Your task to perform on an android device: Search for razer blade on costco, select the first entry, add it to the cart, then select checkout. Image 0: 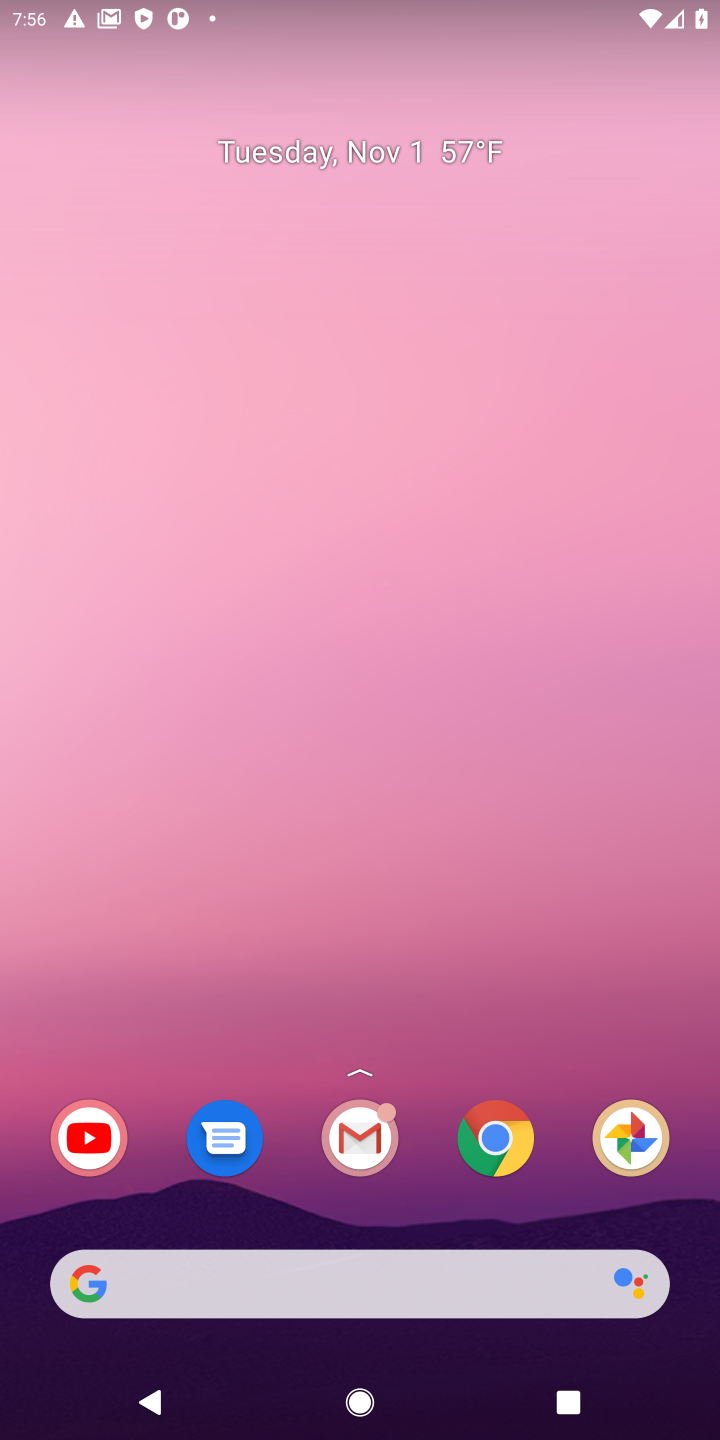
Step 0: click (510, 1157)
Your task to perform on an android device: Search for razer blade on costco, select the first entry, add it to the cart, then select checkout. Image 1: 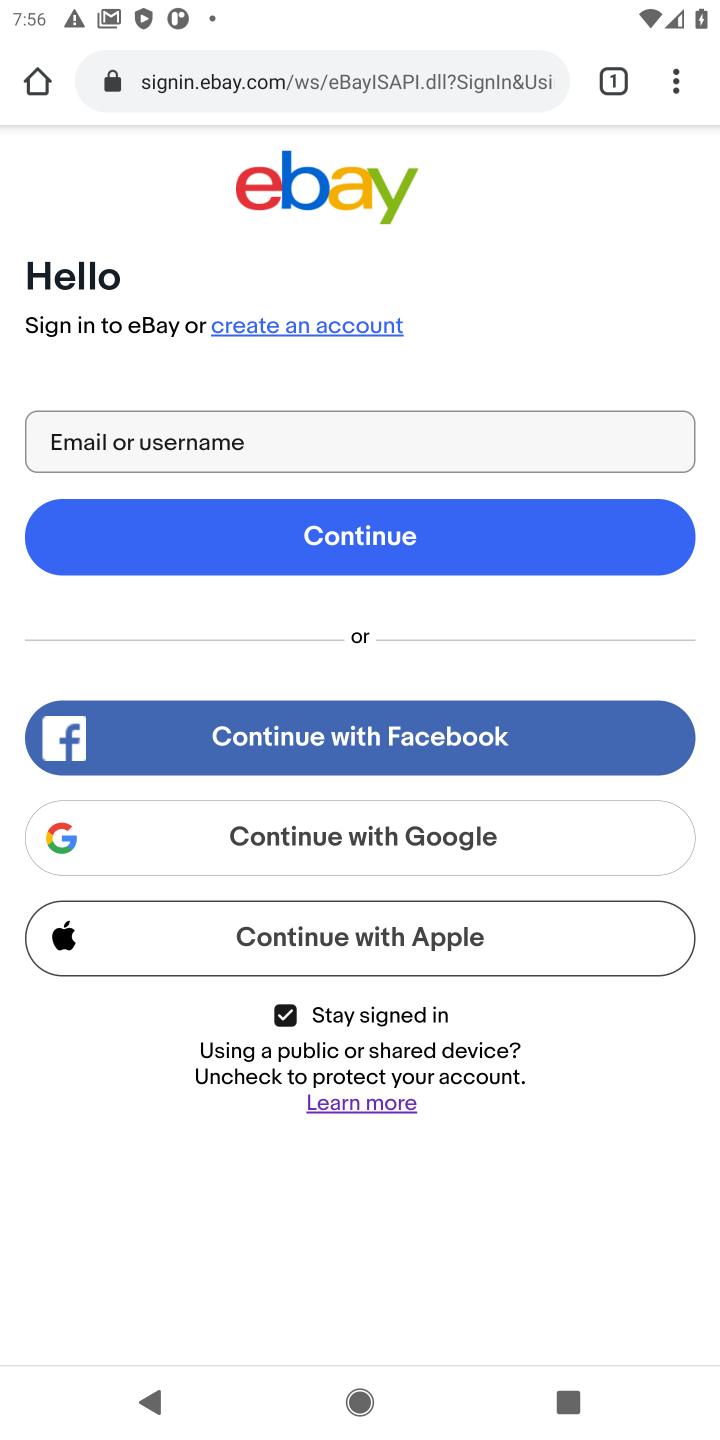
Step 1: click (246, 92)
Your task to perform on an android device: Search for razer blade on costco, select the first entry, add it to the cart, then select checkout. Image 2: 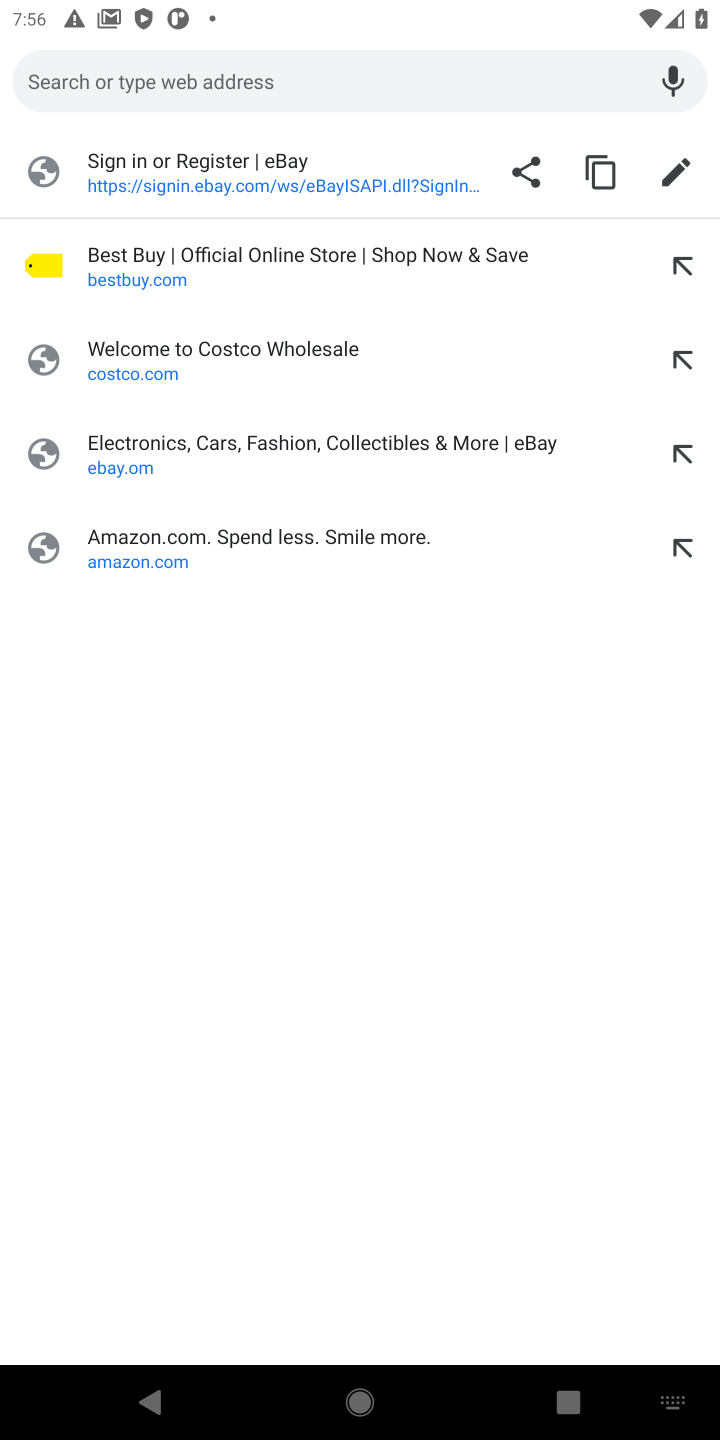
Step 2: click (154, 379)
Your task to perform on an android device: Search for razer blade on costco, select the first entry, add it to the cart, then select checkout. Image 3: 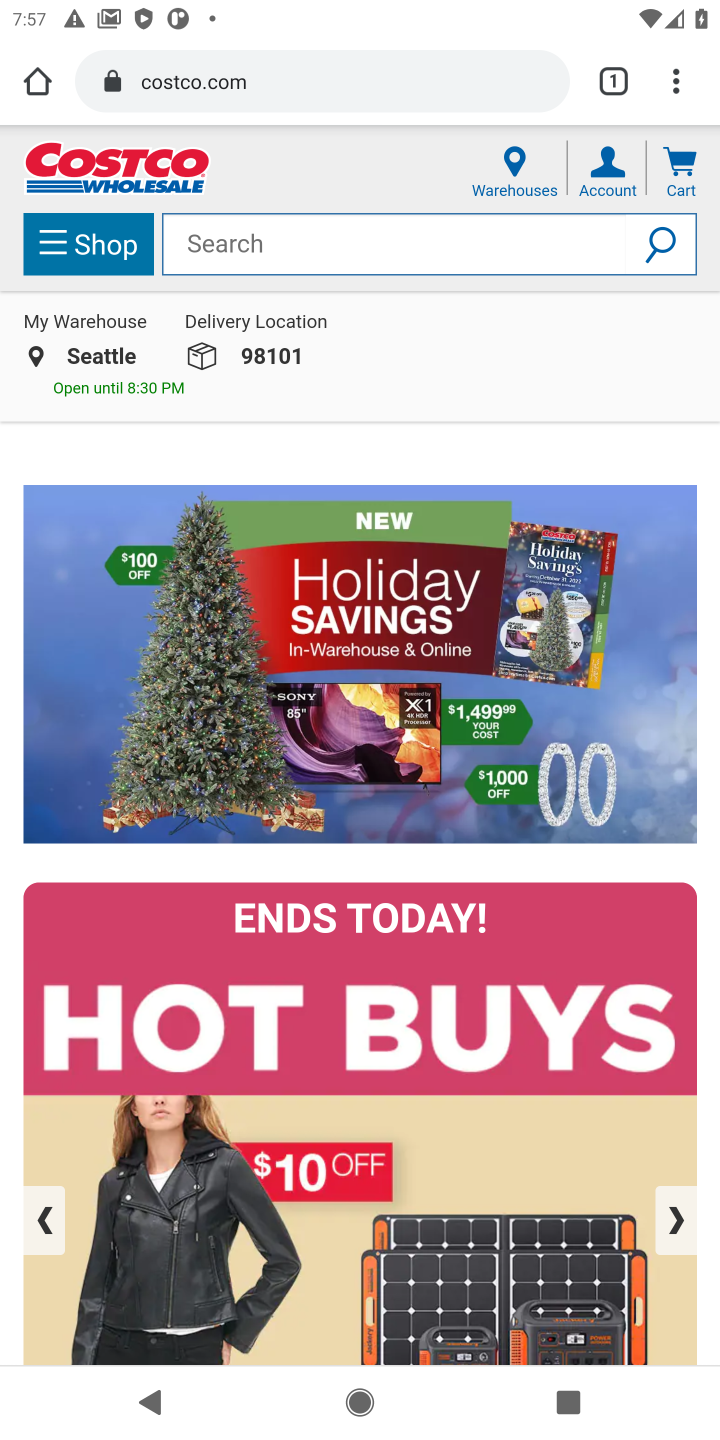
Step 3: click (424, 252)
Your task to perform on an android device: Search for razer blade on costco, select the first entry, add it to the cart, then select checkout. Image 4: 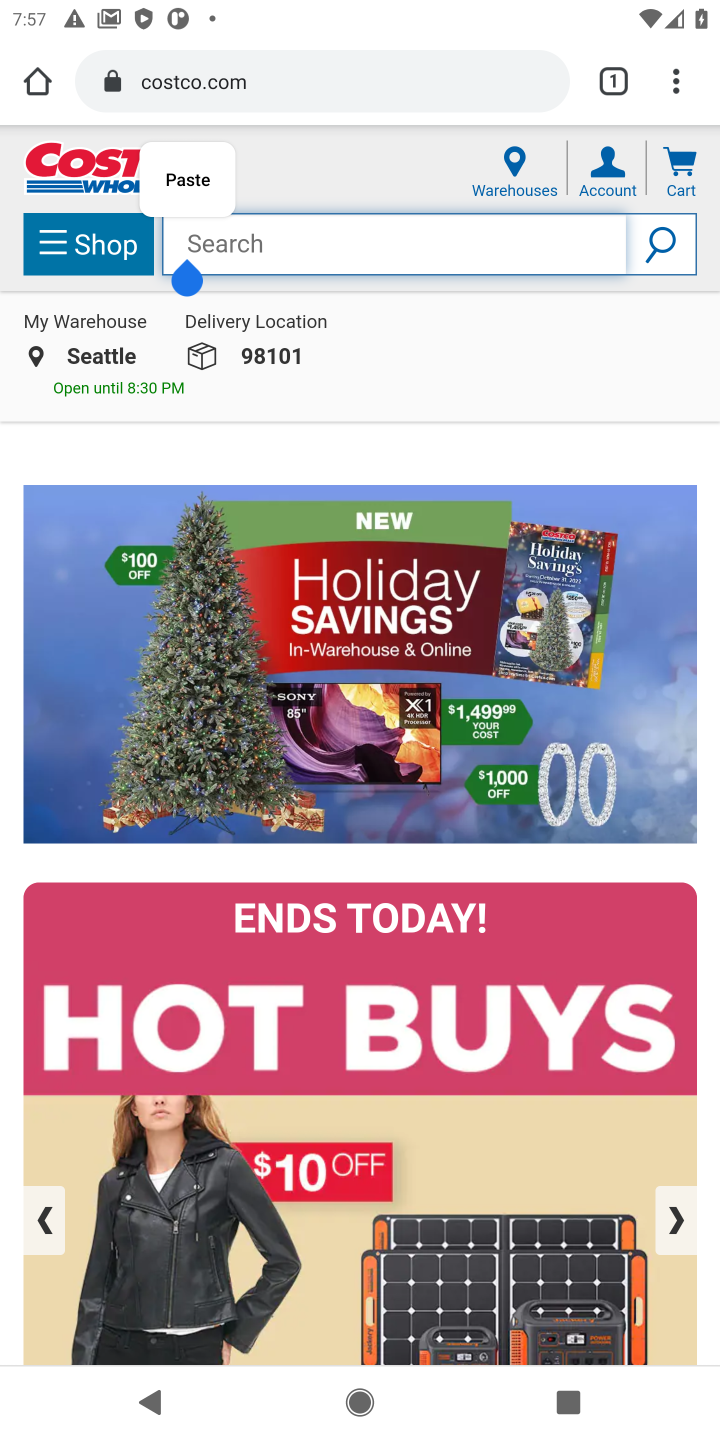
Step 4: click (326, 244)
Your task to perform on an android device: Search for razer blade on costco, select the first entry, add it to the cart, then select checkout. Image 5: 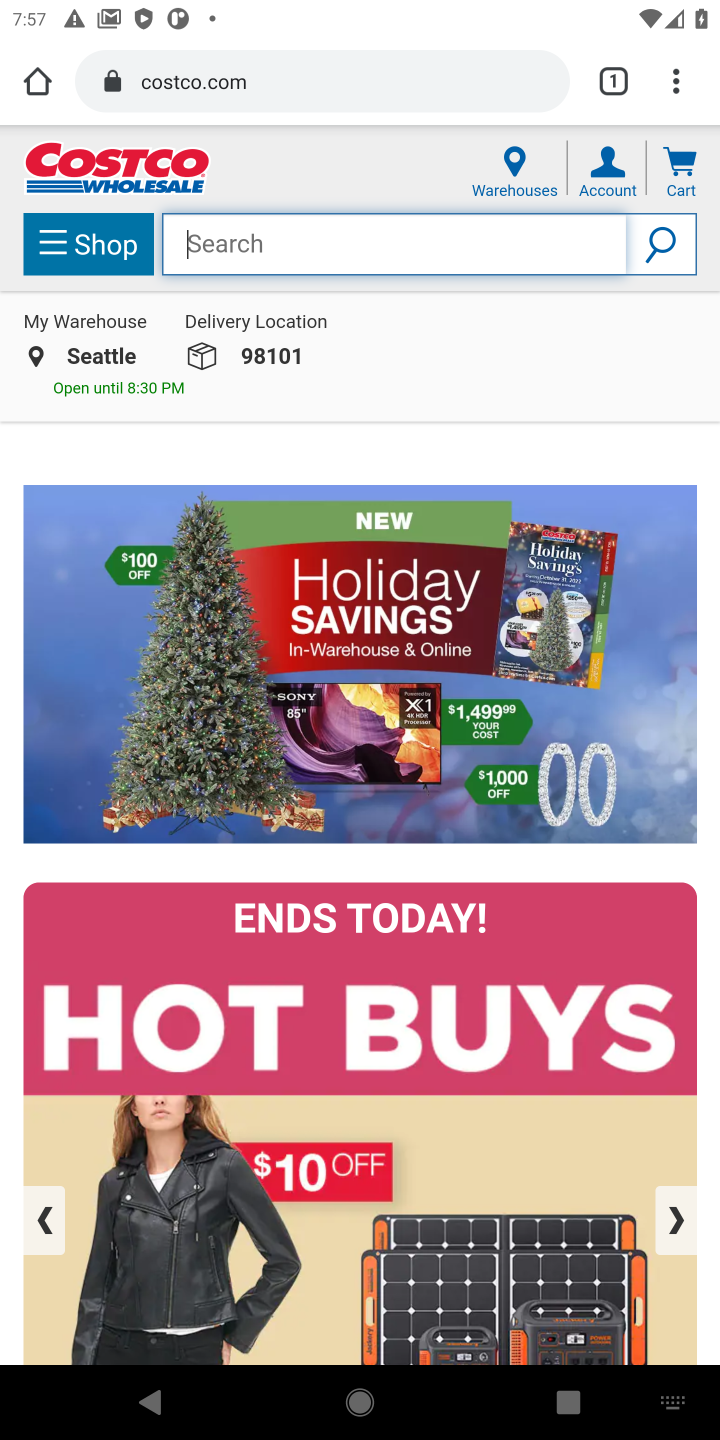
Step 5: type "razer blade"
Your task to perform on an android device: Search for razer blade on costco, select the first entry, add it to the cart, then select checkout. Image 6: 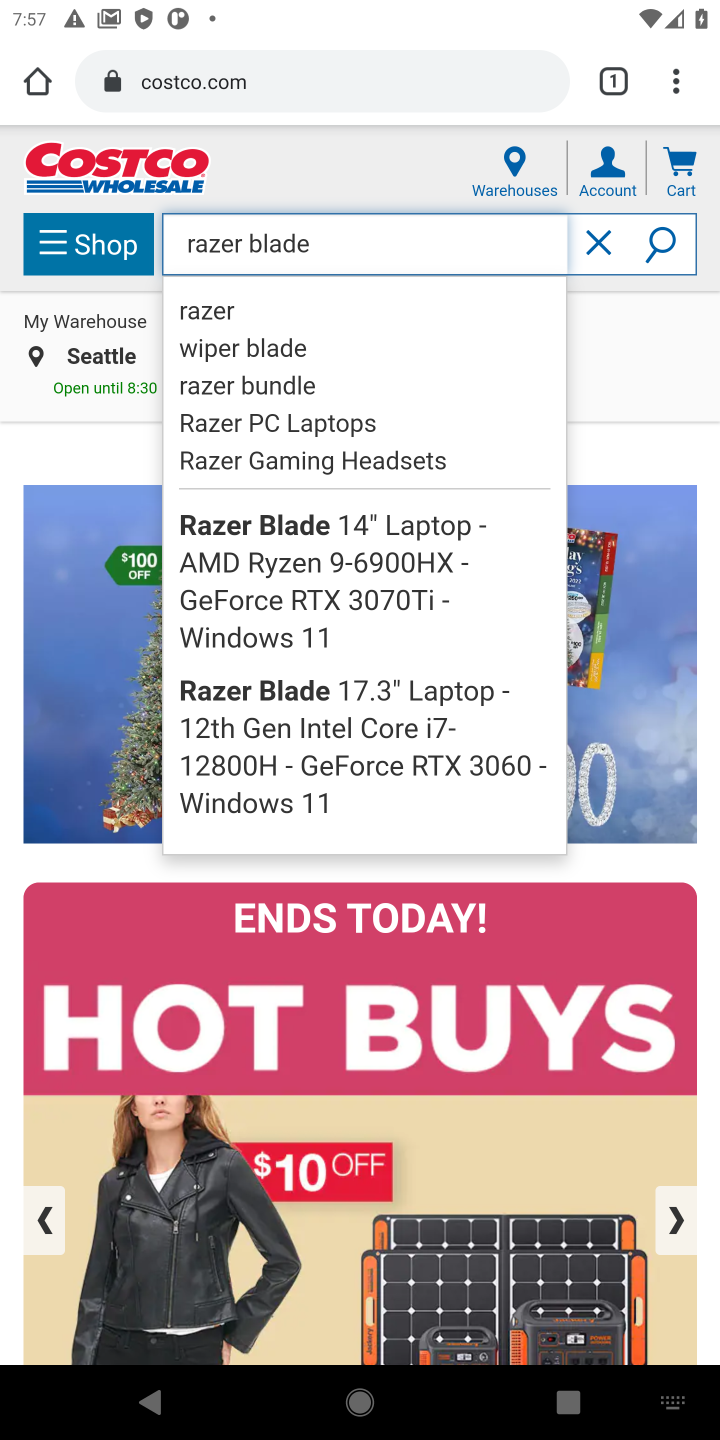
Step 6: click (651, 250)
Your task to perform on an android device: Search for razer blade on costco, select the first entry, add it to the cart, then select checkout. Image 7: 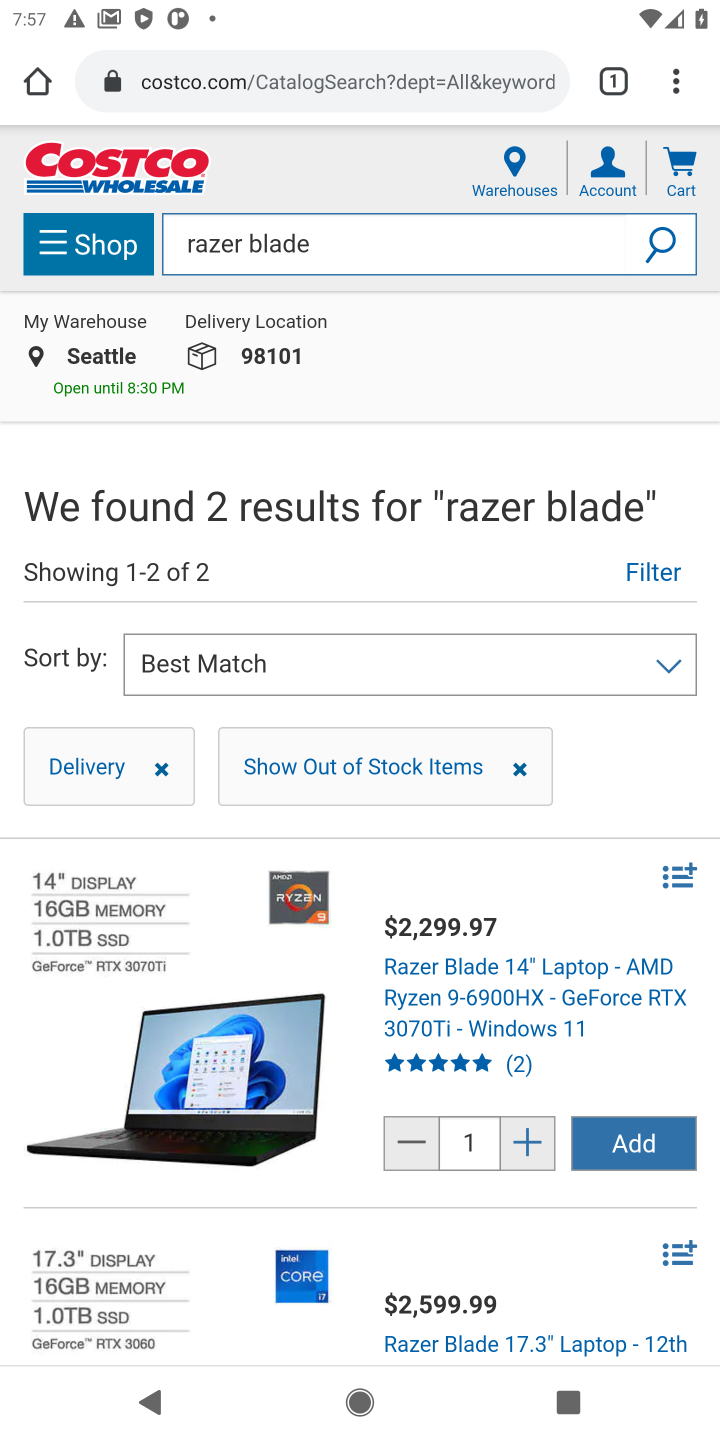
Step 7: drag from (511, 979) to (553, 614)
Your task to perform on an android device: Search for razer blade on costco, select the first entry, add it to the cart, then select checkout. Image 8: 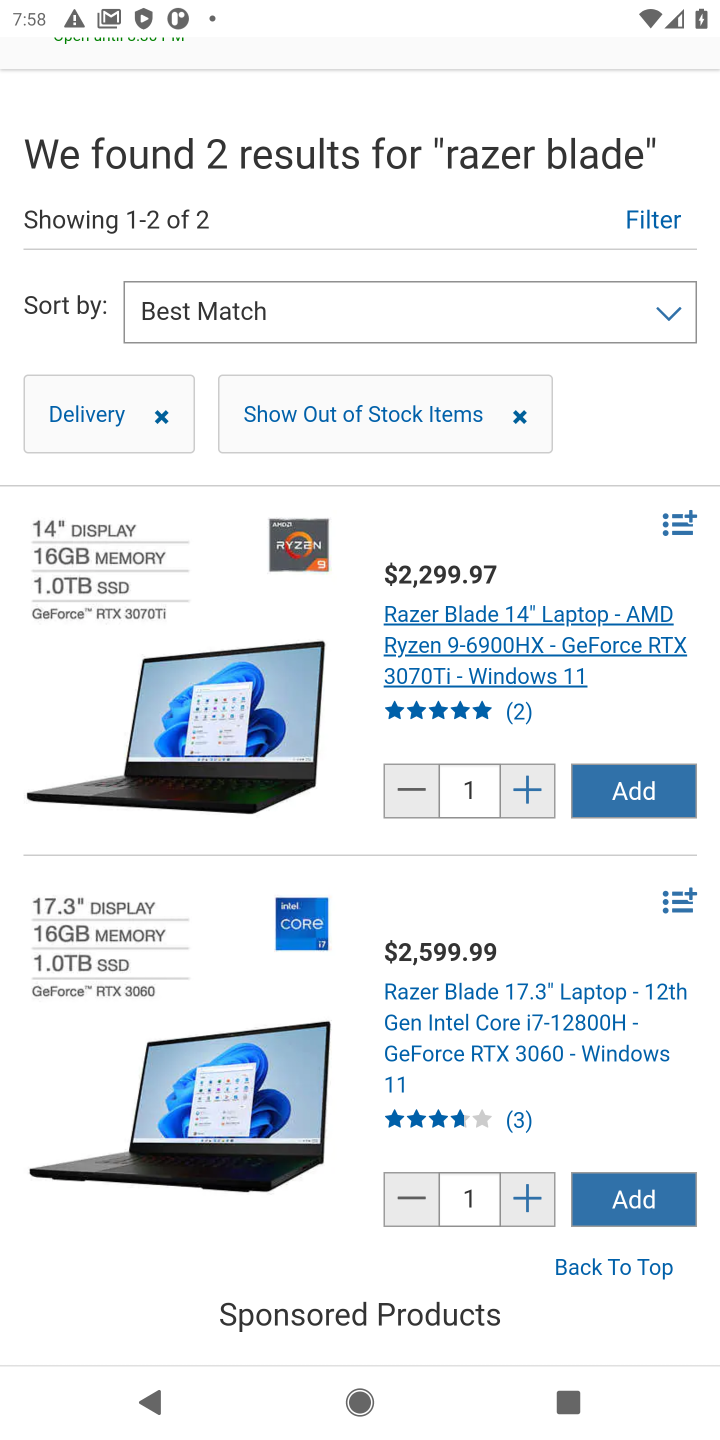
Step 8: click (443, 641)
Your task to perform on an android device: Search for razer blade on costco, select the first entry, add it to the cart, then select checkout. Image 9: 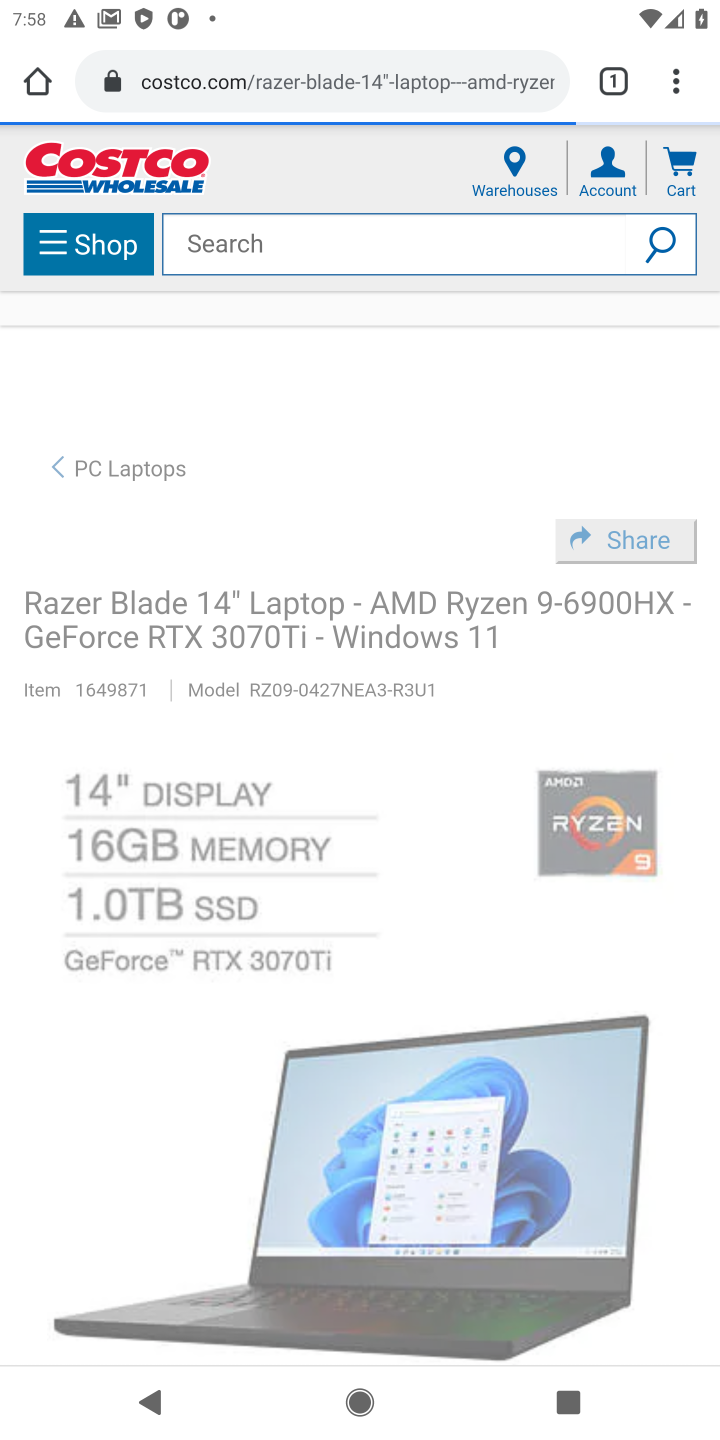
Step 9: drag from (396, 812) to (407, 343)
Your task to perform on an android device: Search for razer blade on costco, select the first entry, add it to the cart, then select checkout. Image 10: 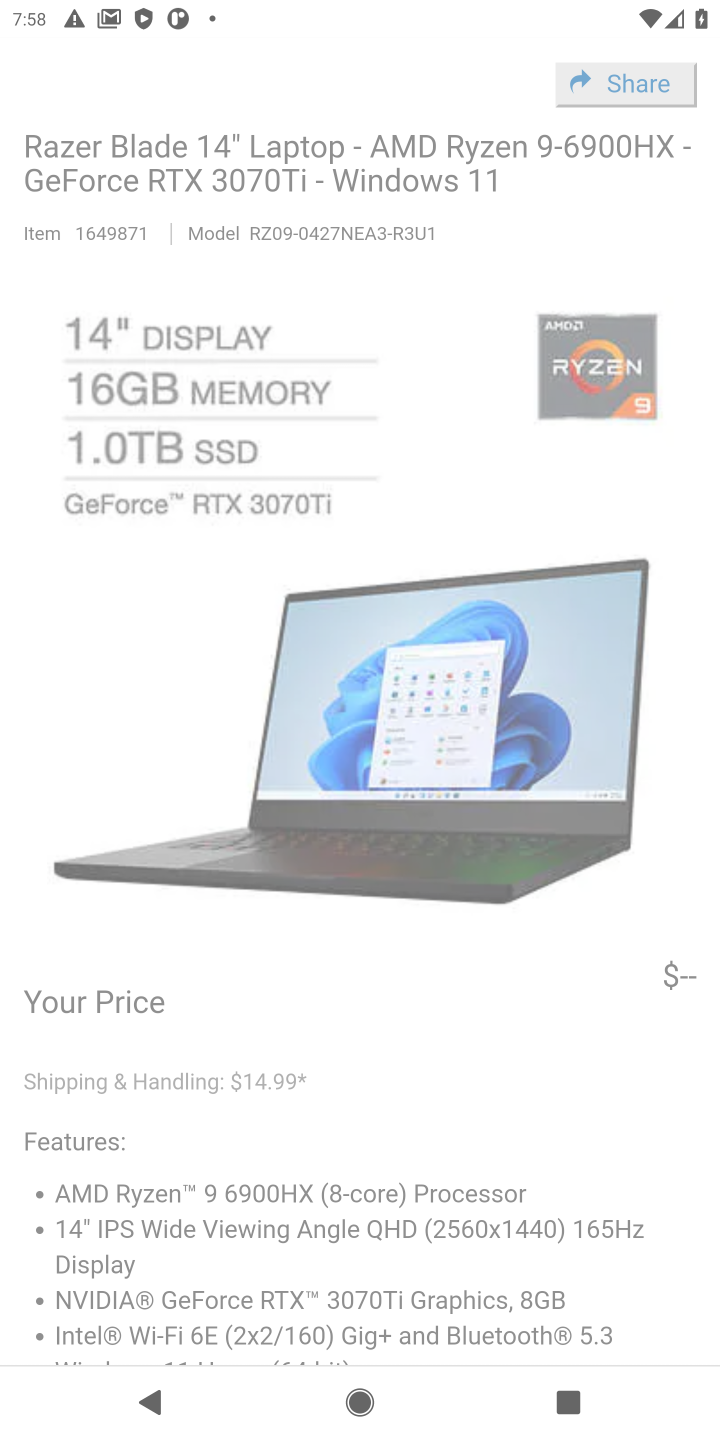
Step 10: drag from (261, 1011) to (333, 420)
Your task to perform on an android device: Search for razer blade on costco, select the first entry, add it to the cart, then select checkout. Image 11: 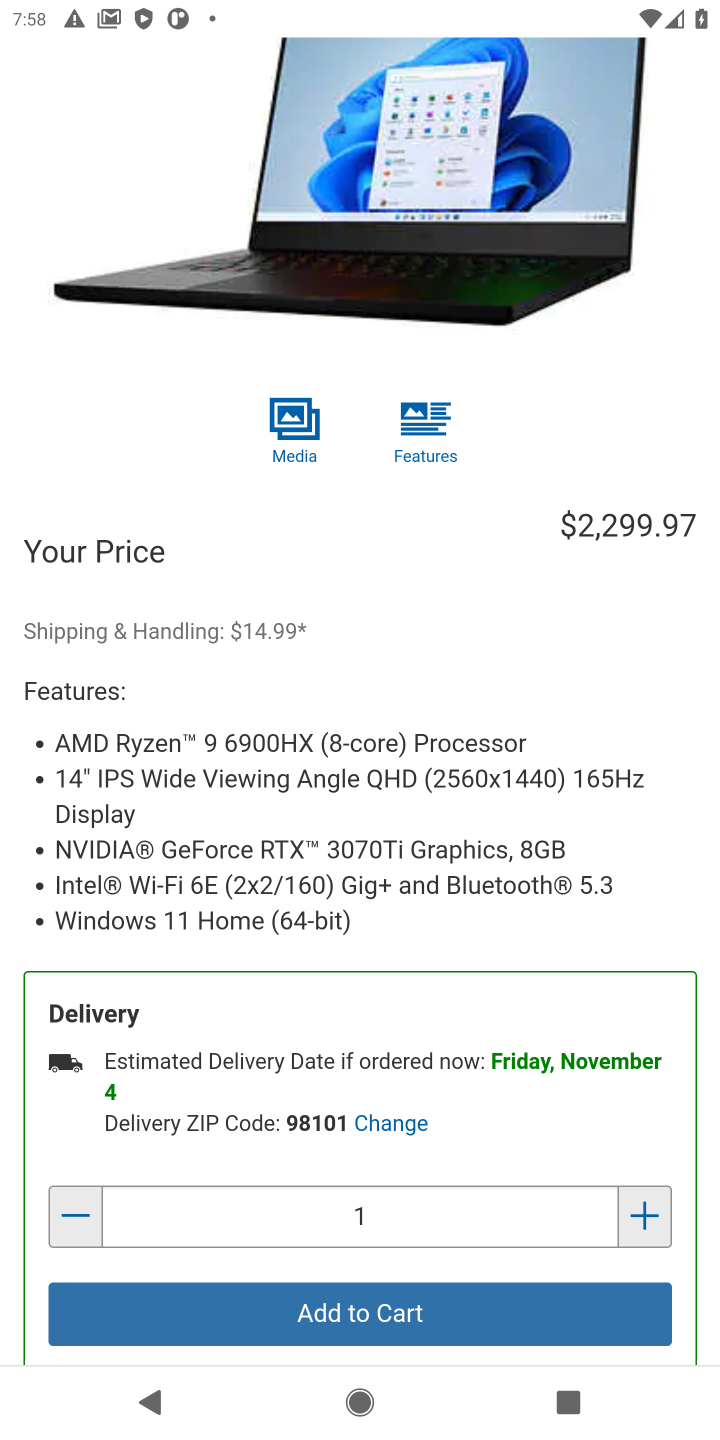
Step 11: click (331, 1315)
Your task to perform on an android device: Search for razer blade on costco, select the first entry, add it to the cart, then select checkout. Image 12: 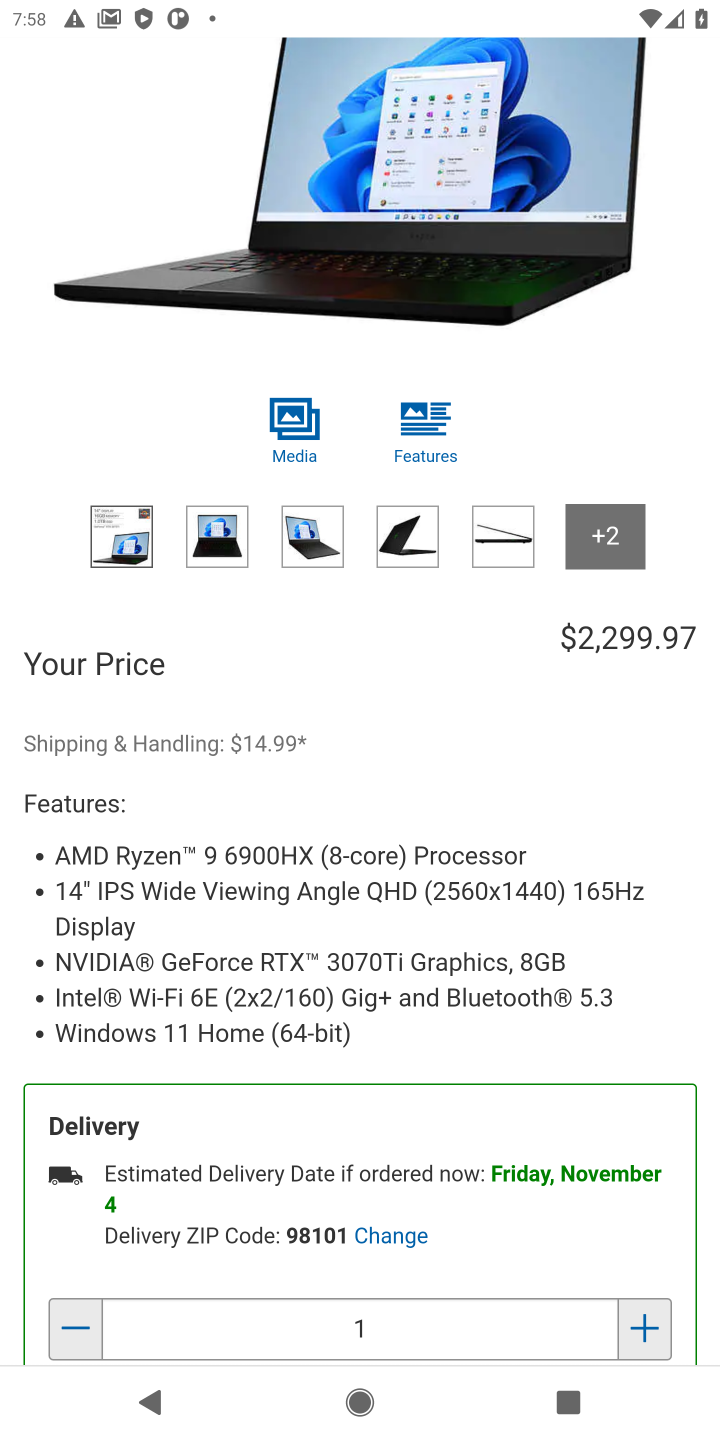
Step 12: drag from (393, 1217) to (393, 915)
Your task to perform on an android device: Search for razer blade on costco, select the first entry, add it to the cart, then select checkout. Image 13: 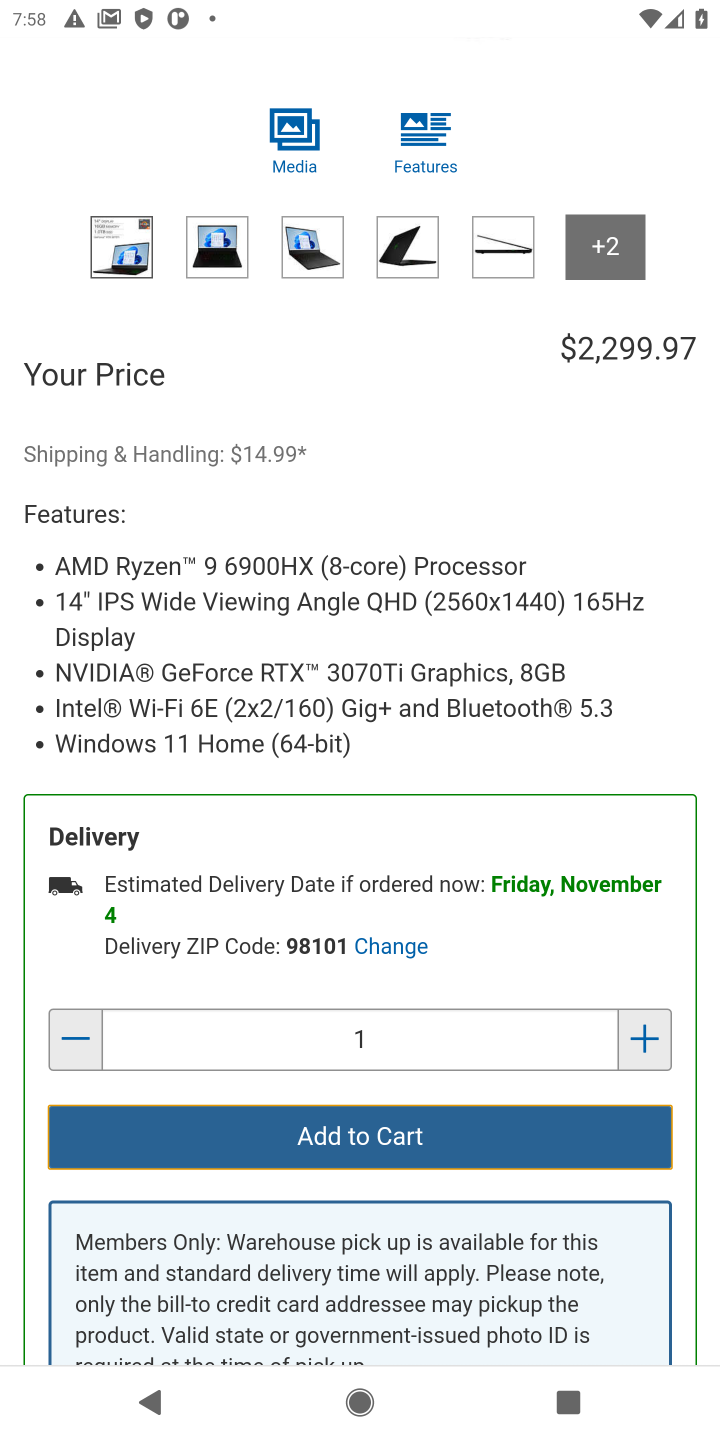
Step 13: click (338, 1138)
Your task to perform on an android device: Search for razer blade on costco, select the first entry, add it to the cart, then select checkout. Image 14: 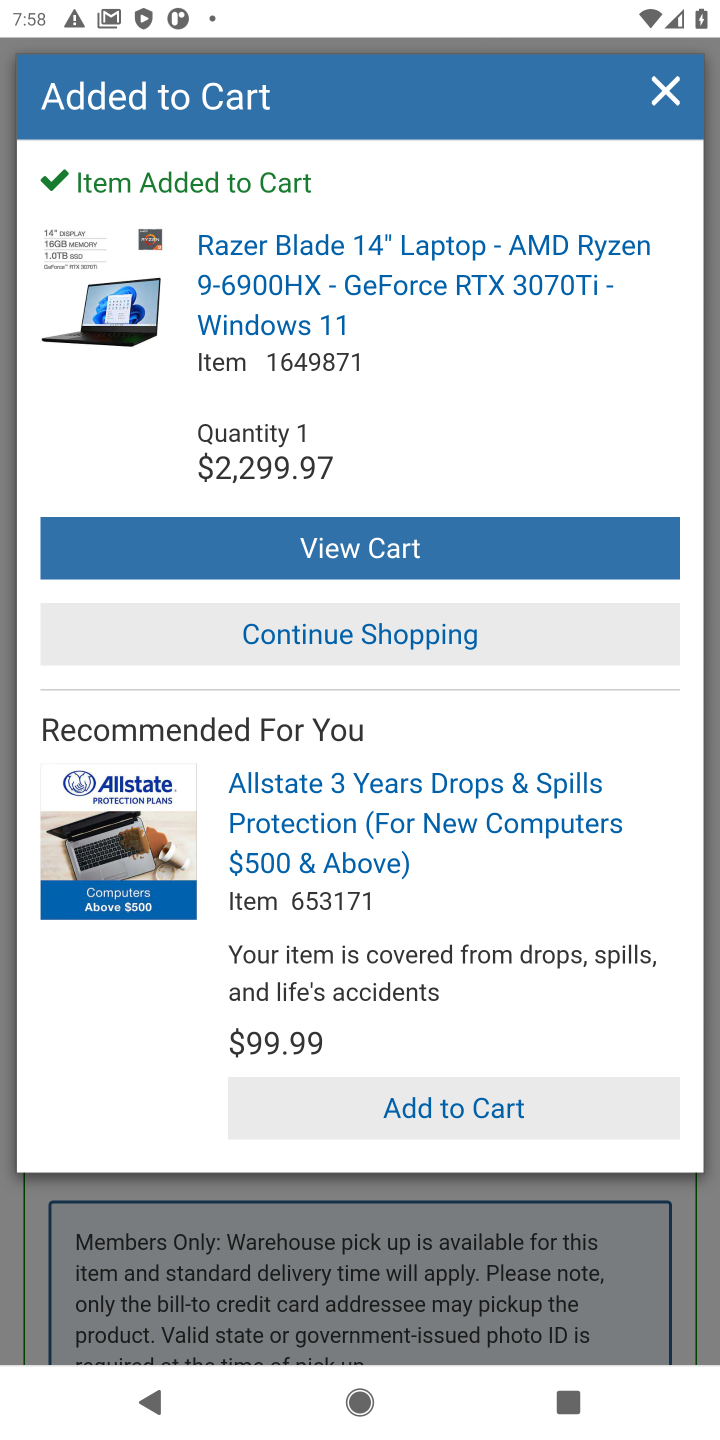
Step 14: click (381, 558)
Your task to perform on an android device: Search for razer blade on costco, select the first entry, add it to the cart, then select checkout. Image 15: 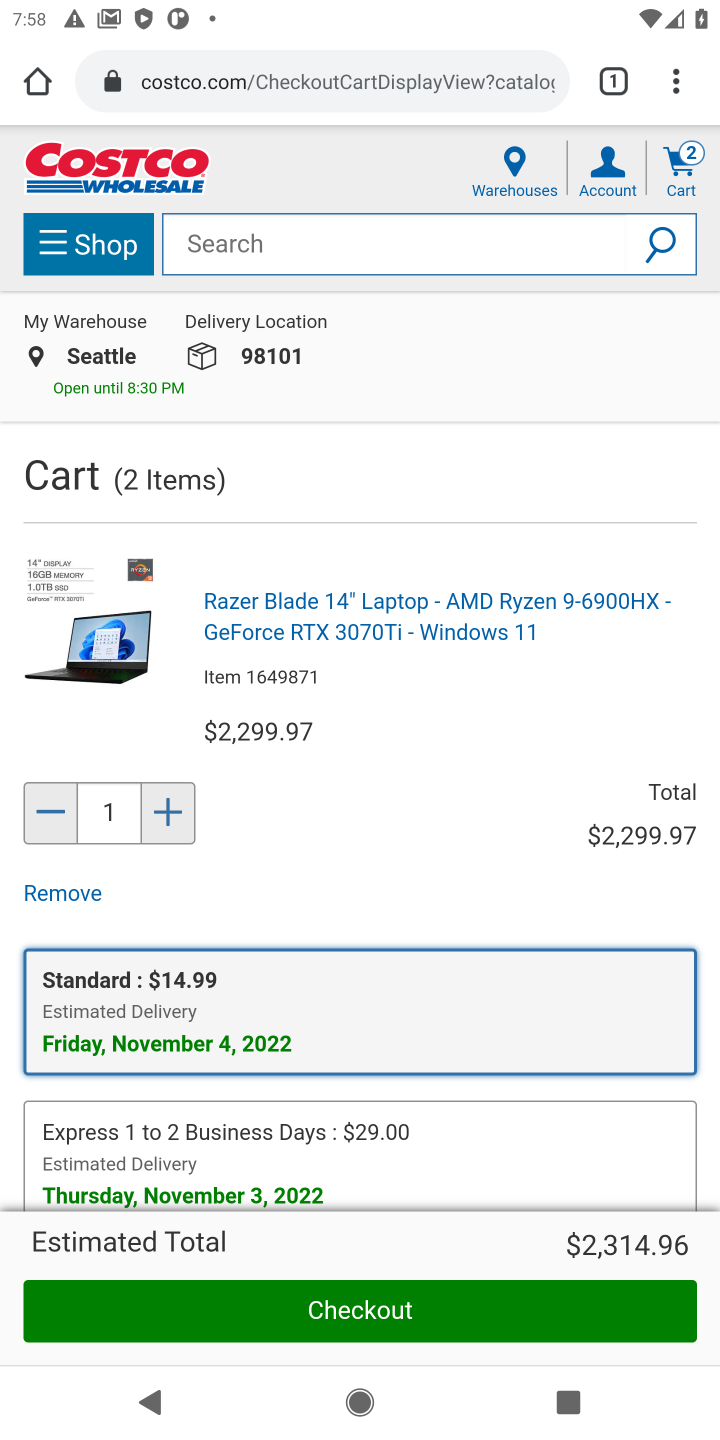
Step 15: click (344, 1311)
Your task to perform on an android device: Search for razer blade on costco, select the first entry, add it to the cart, then select checkout. Image 16: 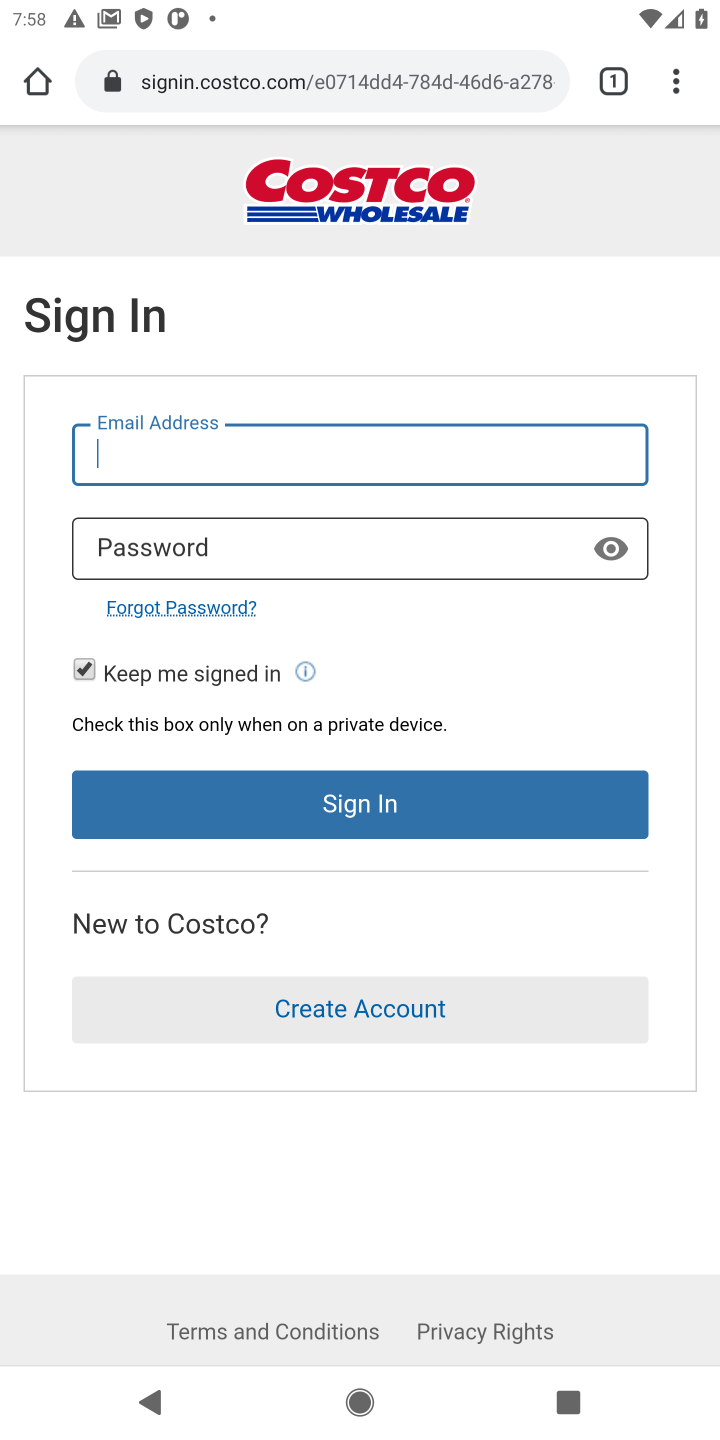
Step 16: task complete